Your task to perform on an android device: Open the Play Movies app and select the watchlist tab. Image 0: 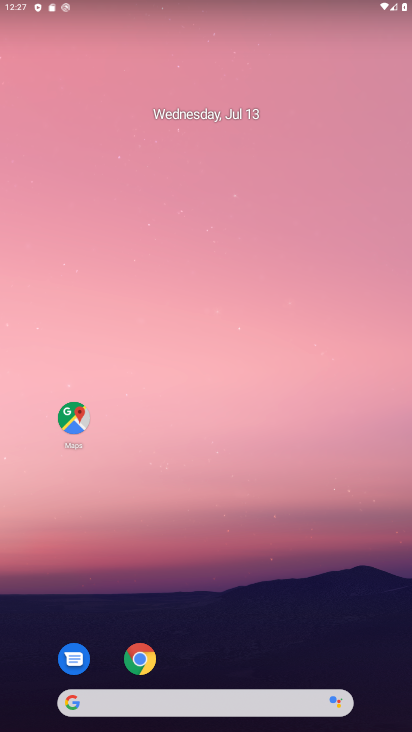
Step 0: drag from (308, 653) to (286, 15)
Your task to perform on an android device: Open the Play Movies app and select the watchlist tab. Image 1: 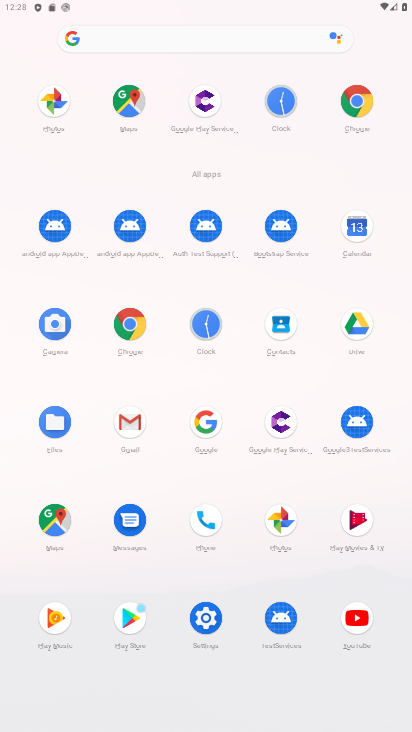
Step 1: click (352, 521)
Your task to perform on an android device: Open the Play Movies app and select the watchlist tab. Image 2: 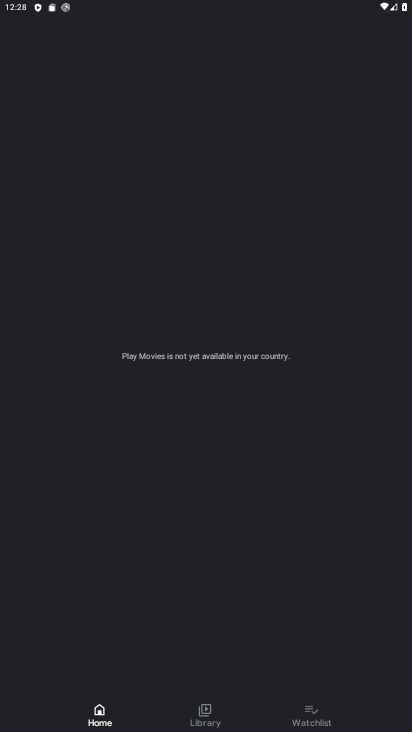
Step 2: click (313, 715)
Your task to perform on an android device: Open the Play Movies app and select the watchlist tab. Image 3: 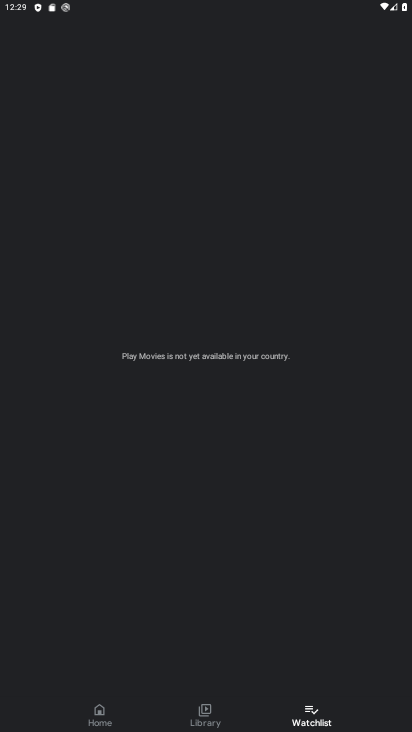
Step 3: task complete